Your task to perform on an android device: set the stopwatch Image 0: 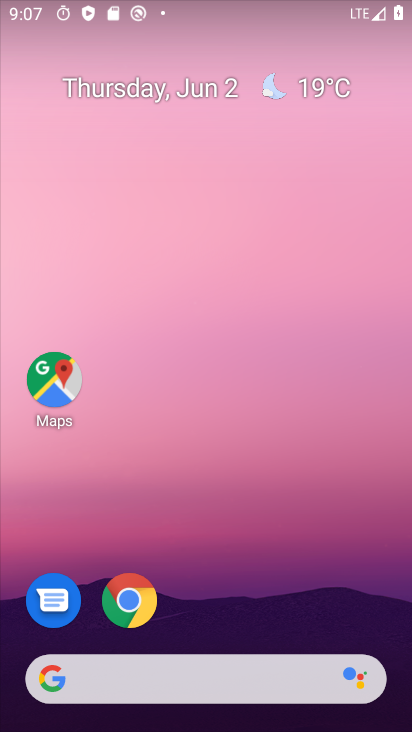
Step 0: drag from (227, 620) to (233, 226)
Your task to perform on an android device: set the stopwatch Image 1: 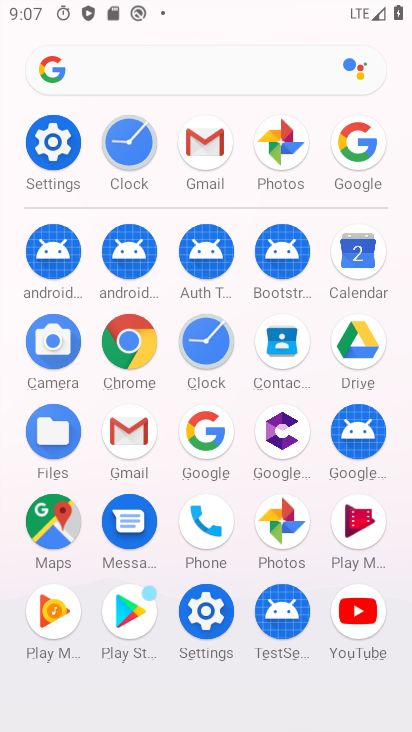
Step 1: click (120, 159)
Your task to perform on an android device: set the stopwatch Image 2: 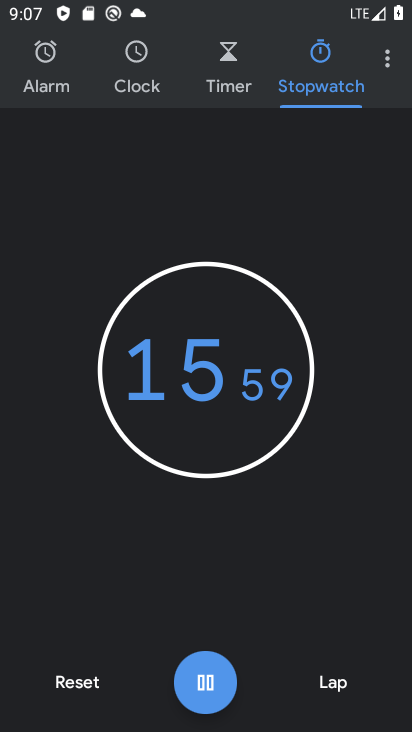
Step 2: task complete